Your task to perform on an android device: open a new tab in the chrome app Image 0: 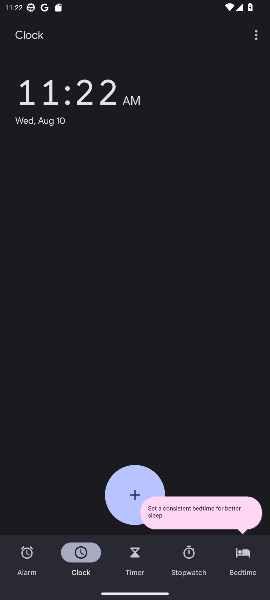
Step 0: press home button
Your task to perform on an android device: open a new tab in the chrome app Image 1: 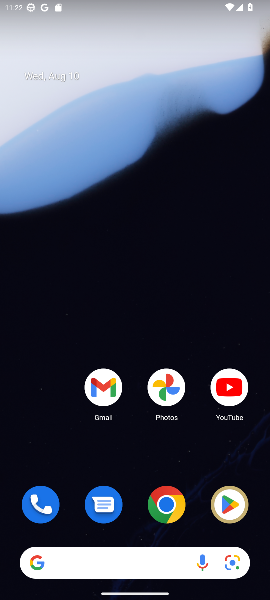
Step 1: drag from (49, 431) to (89, 69)
Your task to perform on an android device: open a new tab in the chrome app Image 2: 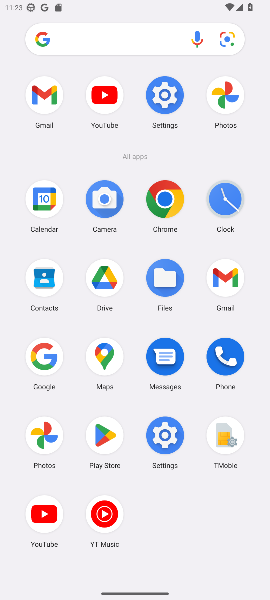
Step 2: click (172, 206)
Your task to perform on an android device: open a new tab in the chrome app Image 3: 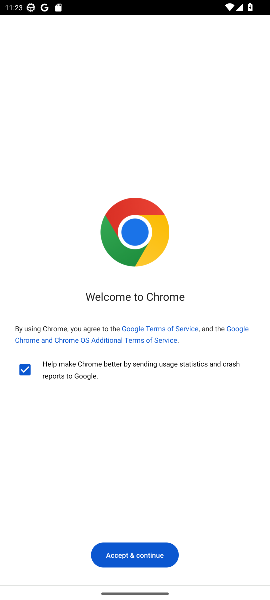
Step 3: click (132, 558)
Your task to perform on an android device: open a new tab in the chrome app Image 4: 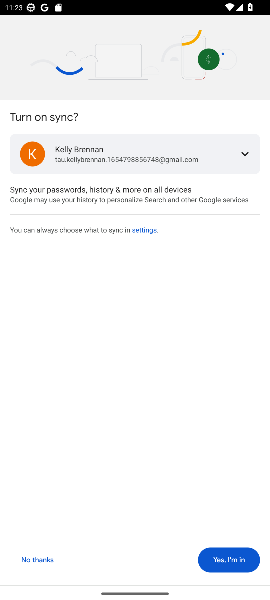
Step 4: click (219, 560)
Your task to perform on an android device: open a new tab in the chrome app Image 5: 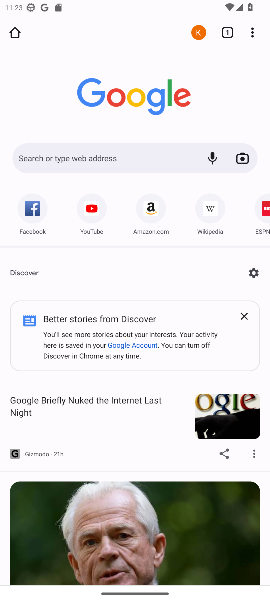
Step 5: task complete